Your task to perform on an android device: Open Youtube and go to the subscriptions tab Image 0: 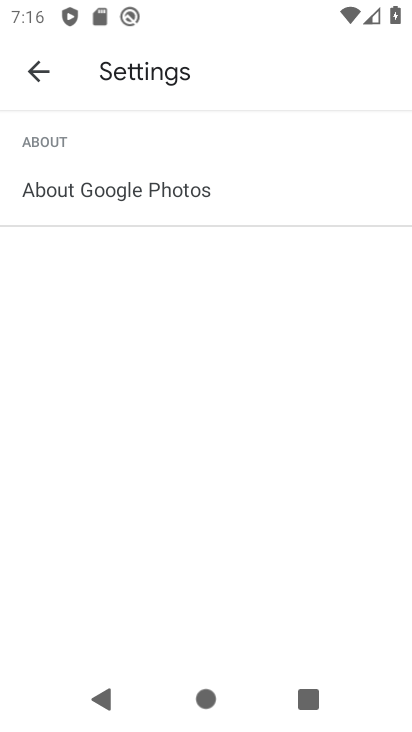
Step 0: press home button
Your task to perform on an android device: Open Youtube and go to the subscriptions tab Image 1: 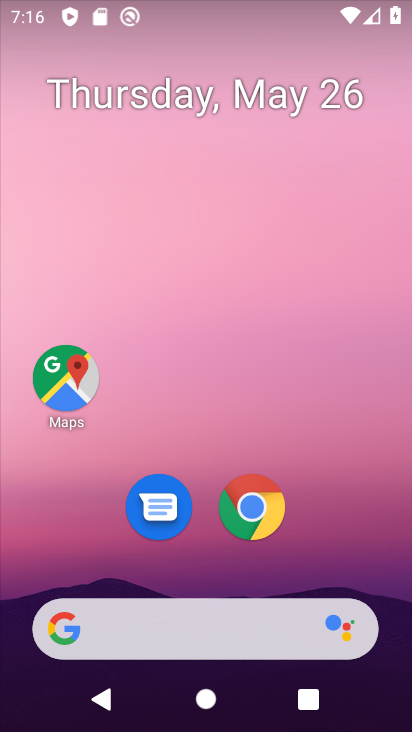
Step 1: drag from (267, 566) to (322, 2)
Your task to perform on an android device: Open Youtube and go to the subscriptions tab Image 2: 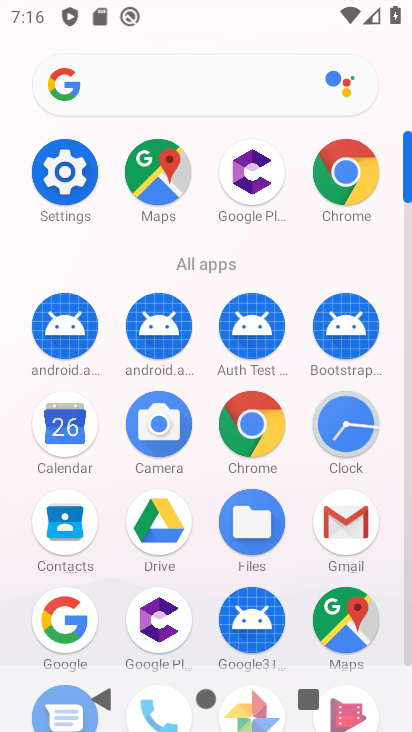
Step 2: drag from (247, 656) to (333, 240)
Your task to perform on an android device: Open Youtube and go to the subscriptions tab Image 3: 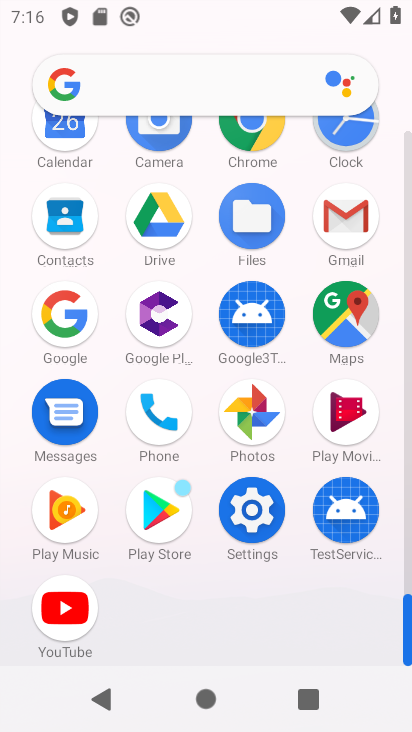
Step 3: click (60, 616)
Your task to perform on an android device: Open Youtube and go to the subscriptions tab Image 4: 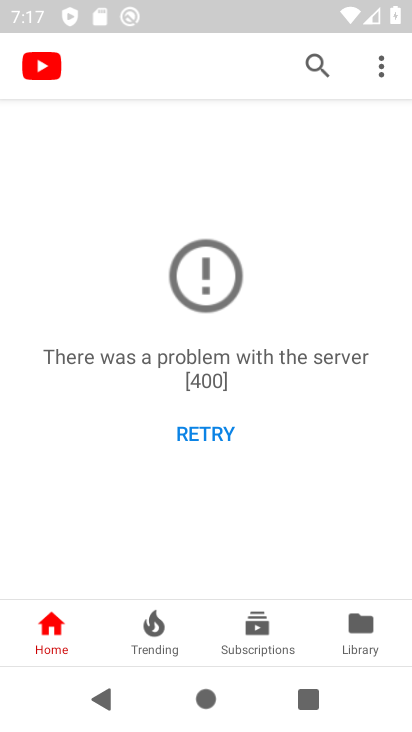
Step 4: click (262, 634)
Your task to perform on an android device: Open Youtube and go to the subscriptions tab Image 5: 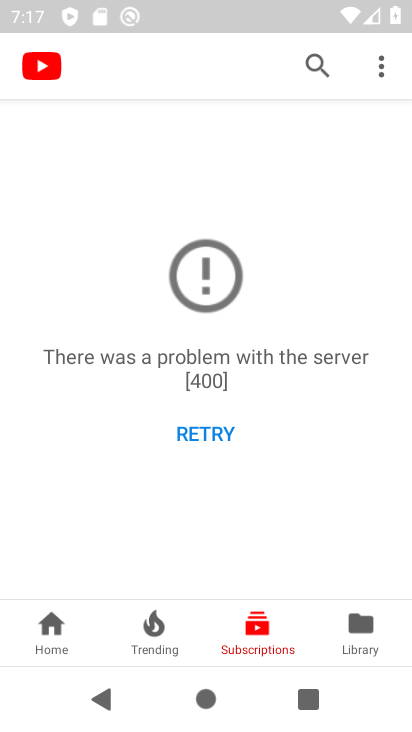
Step 5: task complete